Your task to perform on an android device: What's US dollar exchange rate against the Japanese Yen? Image 0: 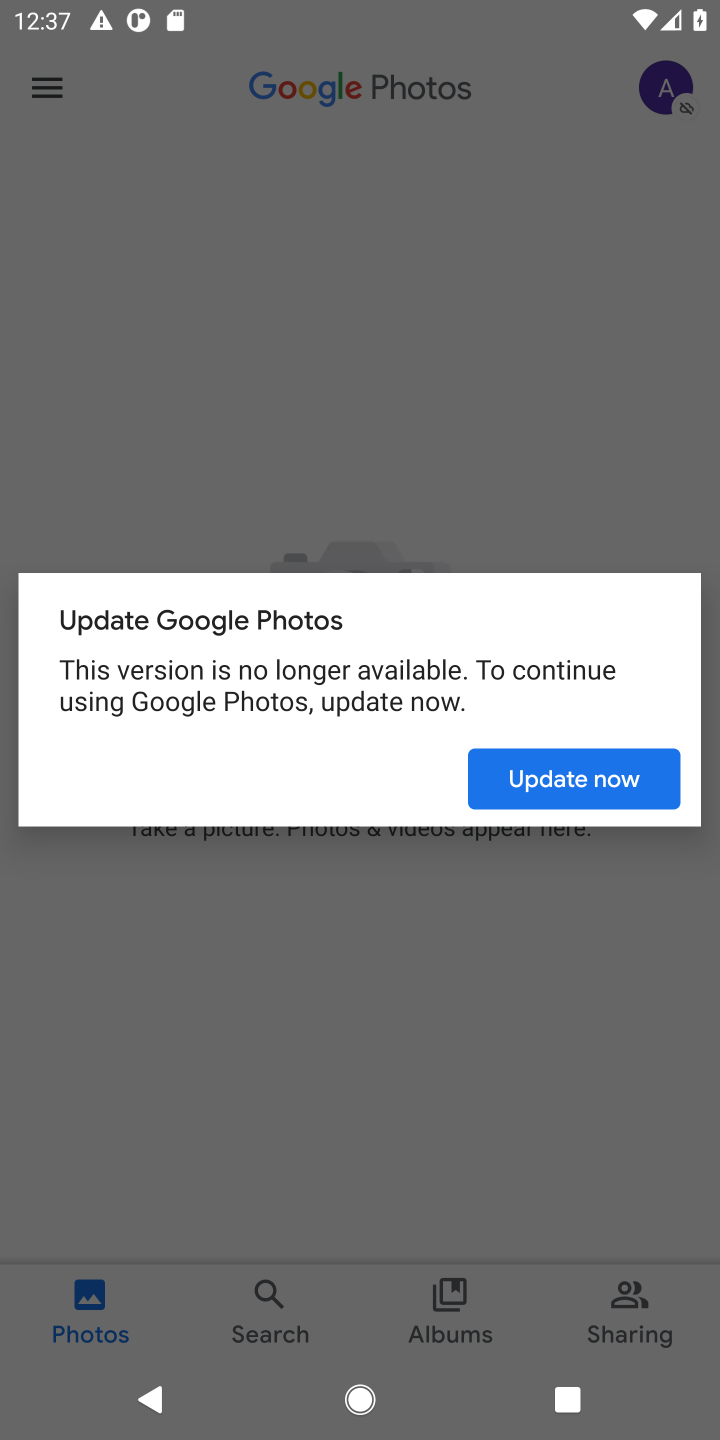
Step 0: press home button
Your task to perform on an android device: What's US dollar exchange rate against the Japanese Yen? Image 1: 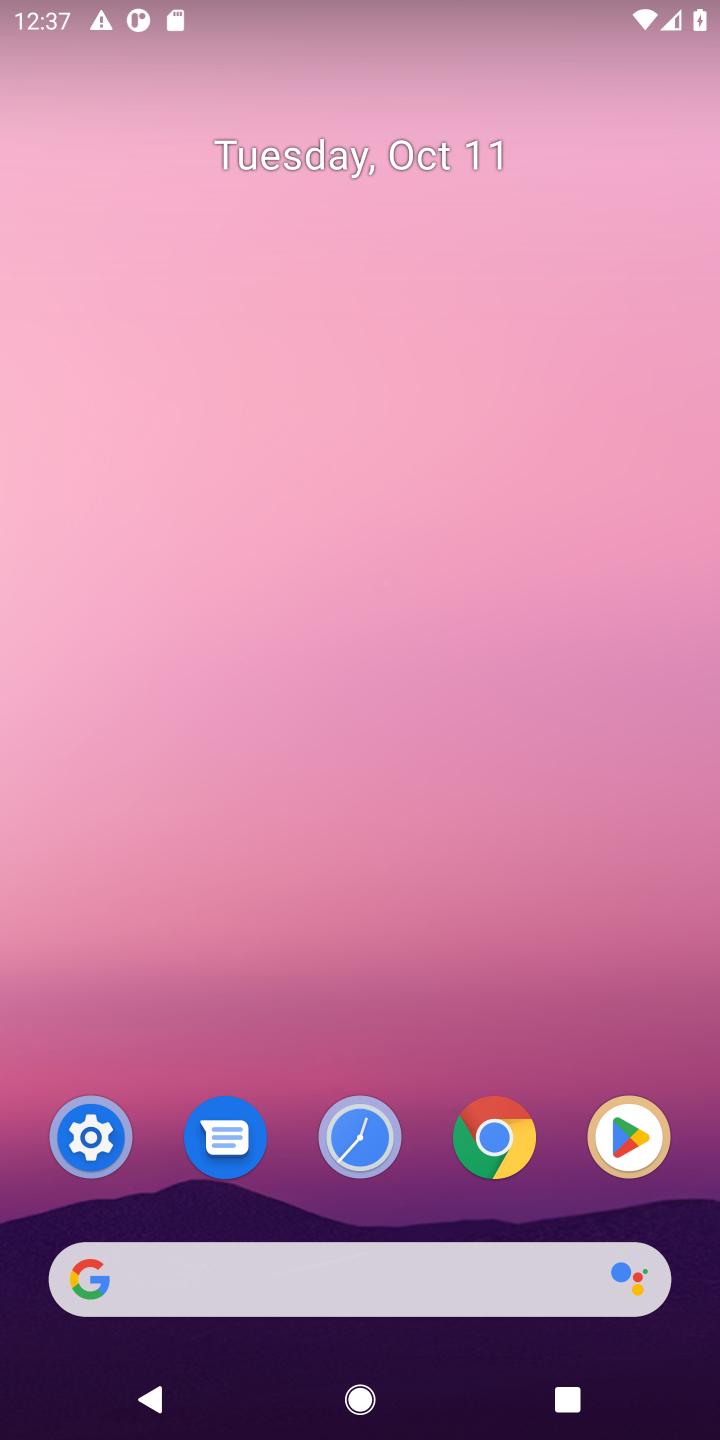
Step 1: click (378, 1276)
Your task to perform on an android device: What's US dollar exchange rate against the Japanese Yen? Image 2: 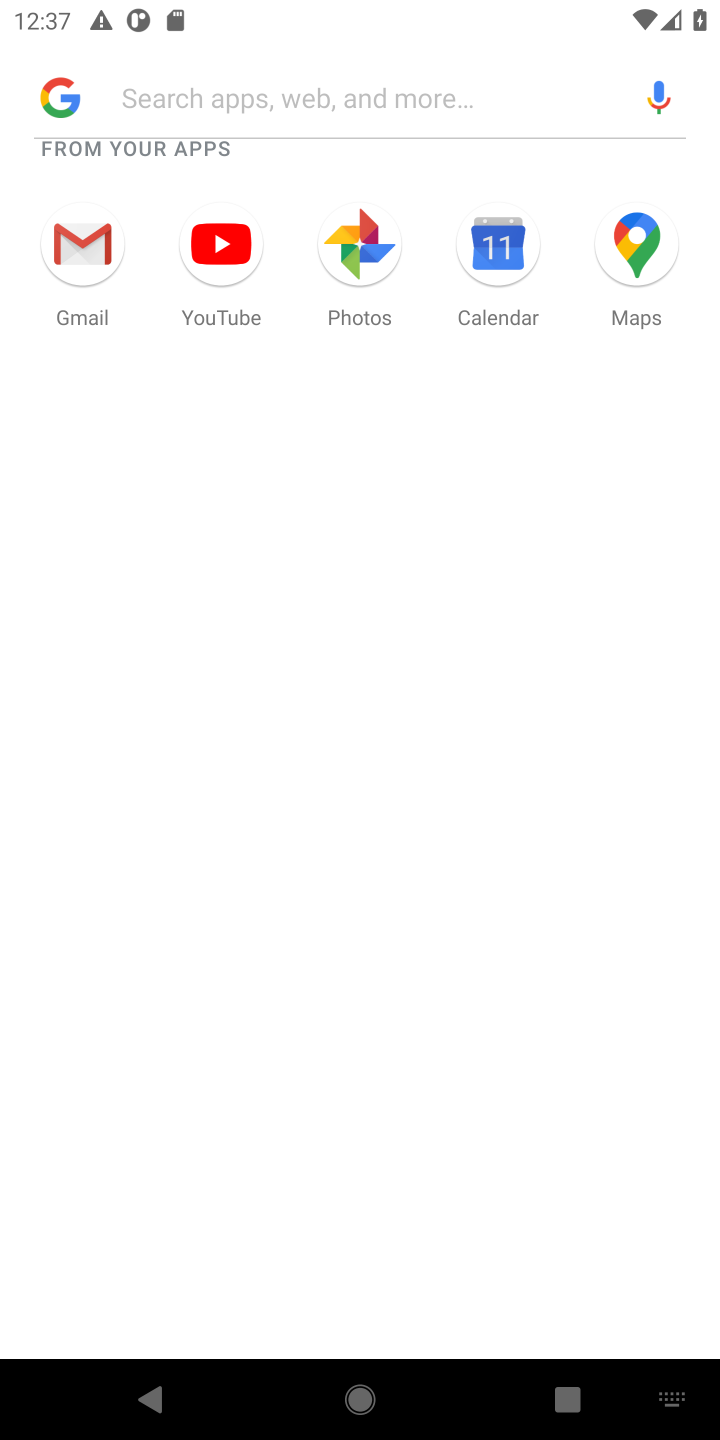
Step 2: type "US dollar exchange rate against the Japanese Yen"
Your task to perform on an android device: What's US dollar exchange rate against the Japanese Yen? Image 3: 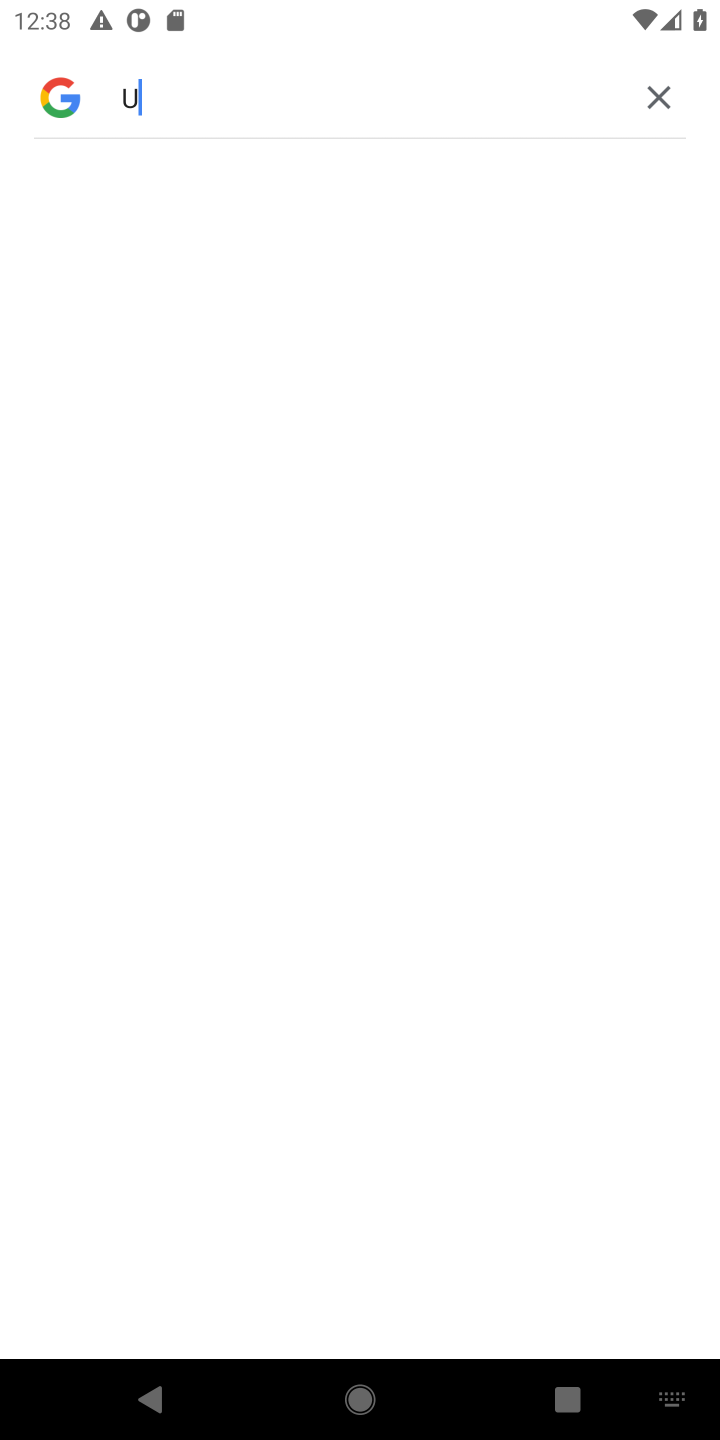
Step 3: click (661, 88)
Your task to perform on an android device: What's US dollar exchange rate against the Japanese Yen? Image 4: 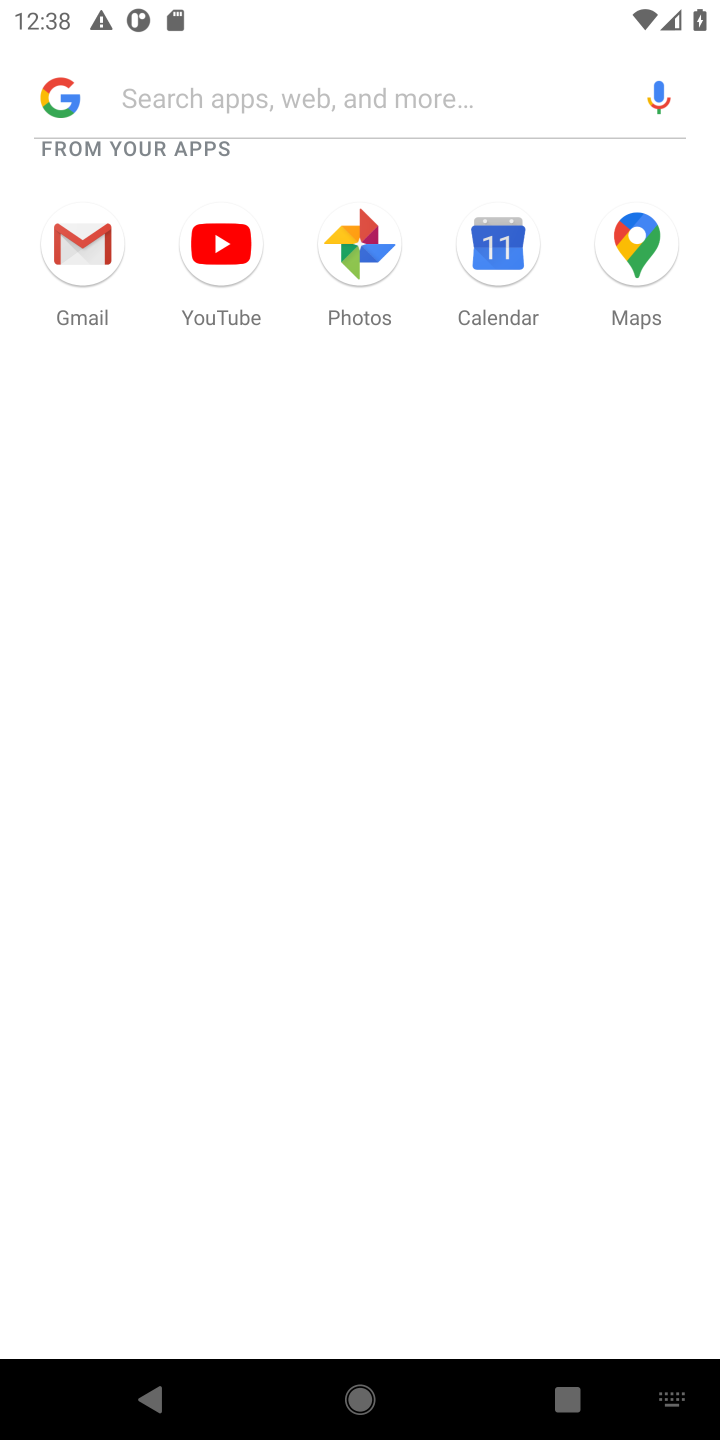
Step 4: type "US dollar exchange rate against the Japanese Yen"
Your task to perform on an android device: What's US dollar exchange rate against the Japanese Yen? Image 5: 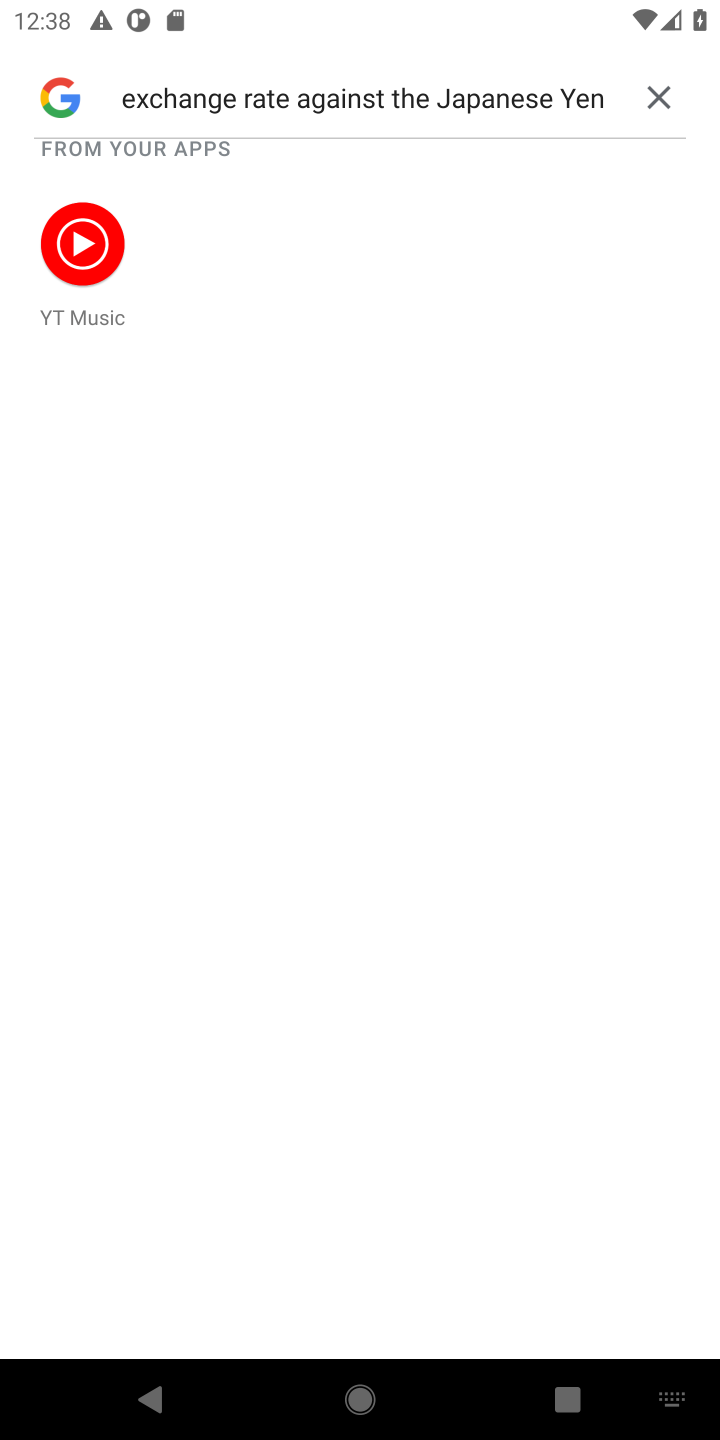
Step 5: type ""
Your task to perform on an android device: What's US dollar exchange rate against the Japanese Yen? Image 6: 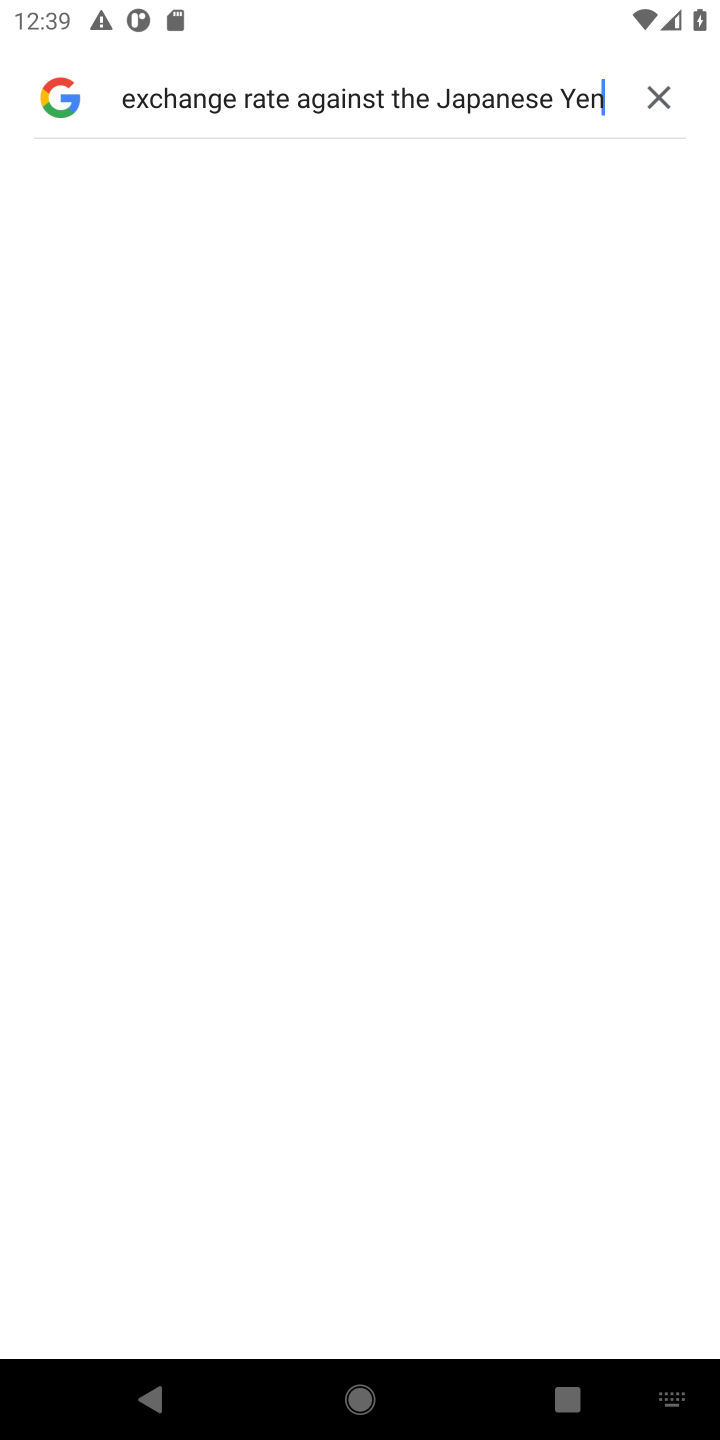
Step 6: task complete